Your task to perform on an android device: Go to notification settings Image 0: 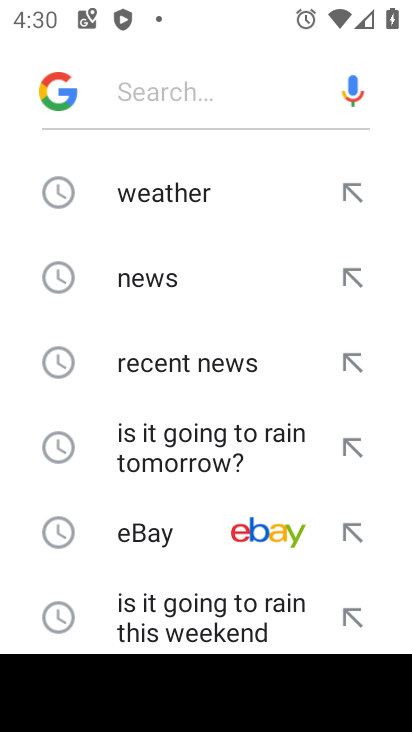
Step 0: press home button
Your task to perform on an android device: Go to notification settings Image 1: 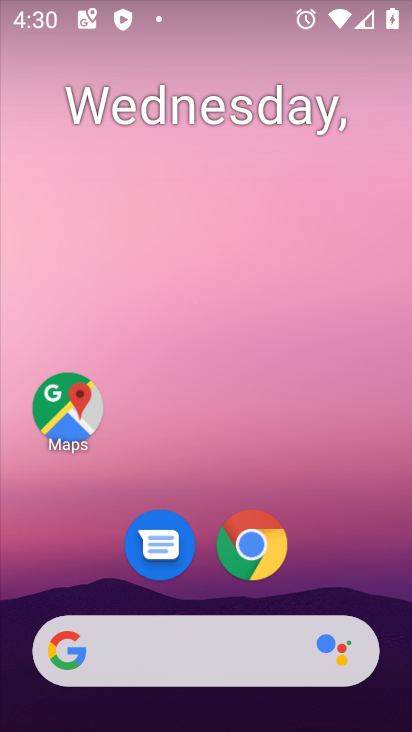
Step 1: drag from (378, 537) to (363, 168)
Your task to perform on an android device: Go to notification settings Image 2: 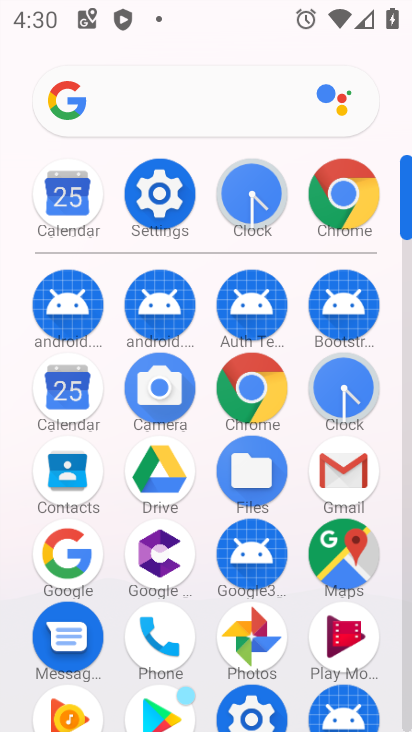
Step 2: click (167, 200)
Your task to perform on an android device: Go to notification settings Image 3: 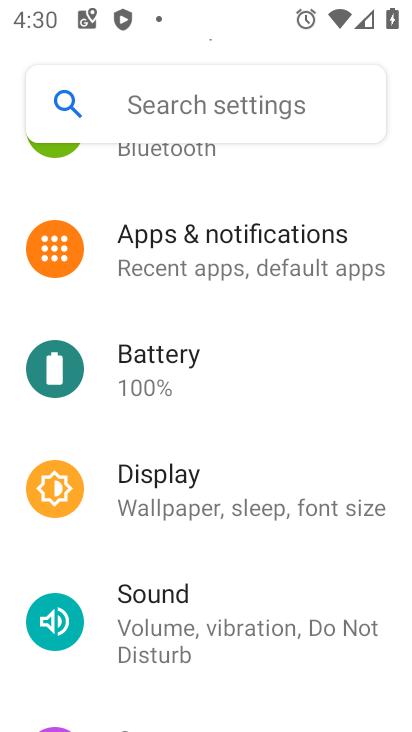
Step 3: drag from (363, 596) to (349, 491)
Your task to perform on an android device: Go to notification settings Image 4: 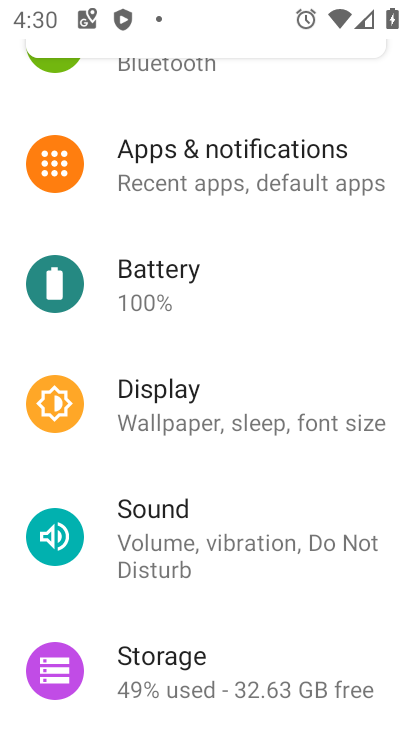
Step 4: drag from (340, 625) to (343, 492)
Your task to perform on an android device: Go to notification settings Image 5: 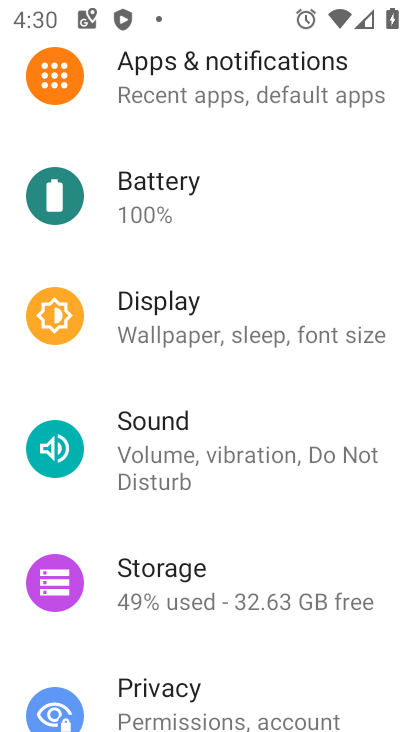
Step 5: drag from (338, 650) to (336, 499)
Your task to perform on an android device: Go to notification settings Image 6: 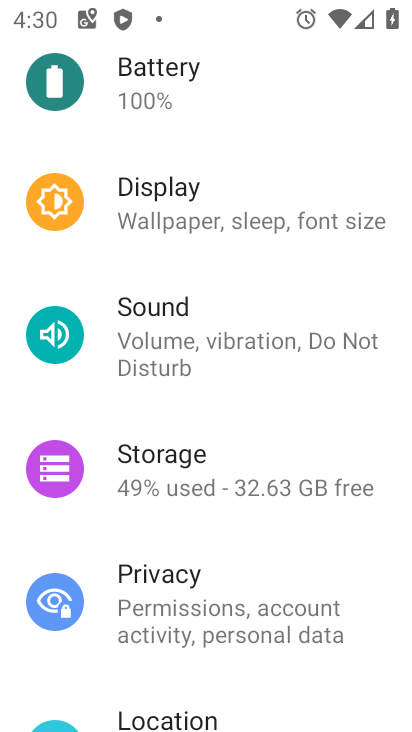
Step 6: drag from (355, 644) to (368, 517)
Your task to perform on an android device: Go to notification settings Image 7: 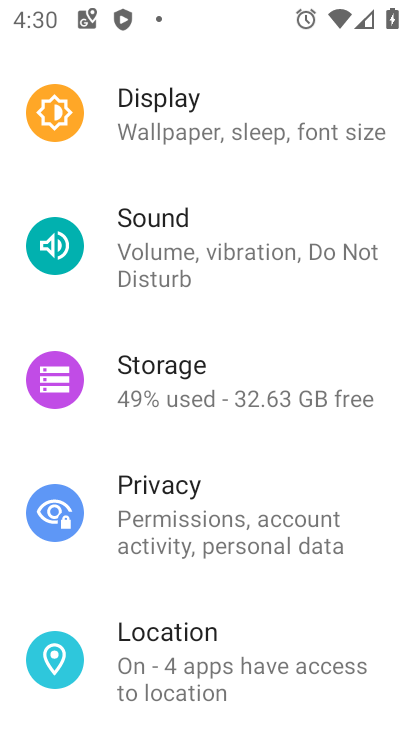
Step 7: drag from (366, 378) to (361, 486)
Your task to perform on an android device: Go to notification settings Image 8: 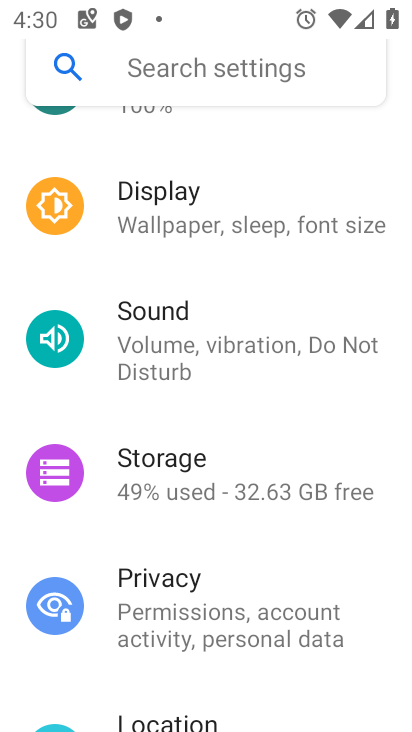
Step 8: drag from (367, 383) to (359, 479)
Your task to perform on an android device: Go to notification settings Image 9: 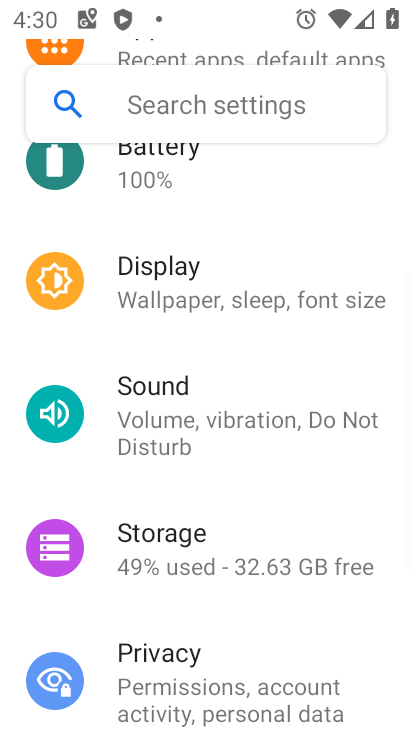
Step 9: drag from (370, 356) to (356, 451)
Your task to perform on an android device: Go to notification settings Image 10: 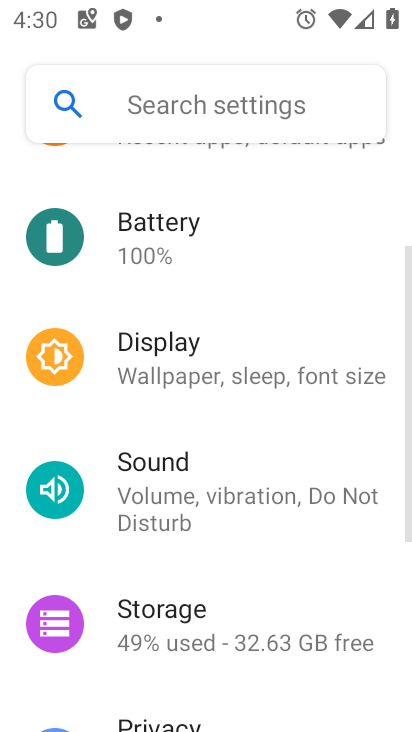
Step 10: drag from (341, 312) to (329, 458)
Your task to perform on an android device: Go to notification settings Image 11: 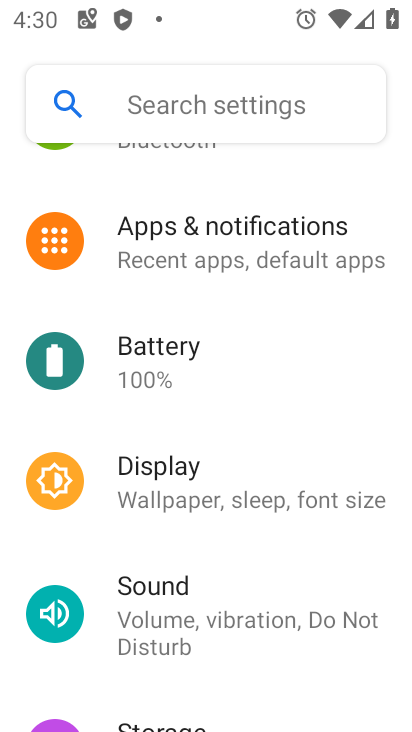
Step 11: click (307, 259)
Your task to perform on an android device: Go to notification settings Image 12: 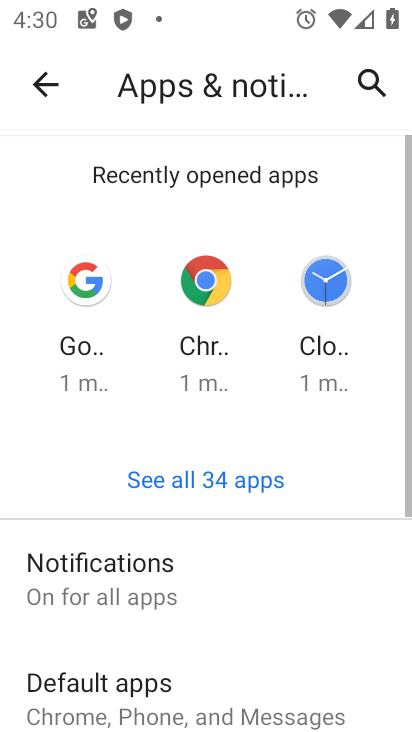
Step 12: click (229, 598)
Your task to perform on an android device: Go to notification settings Image 13: 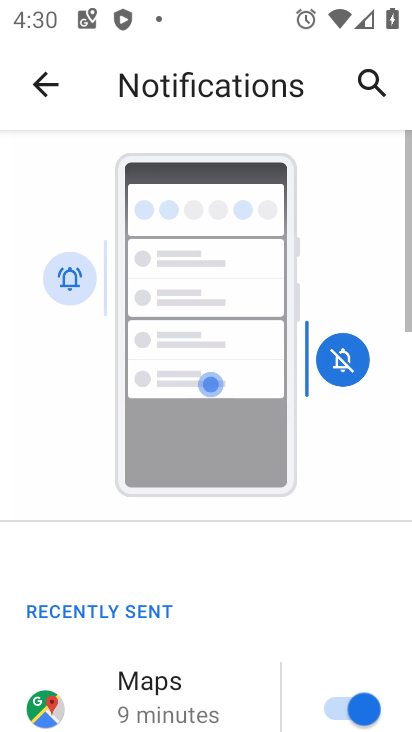
Step 13: task complete